Your task to perform on an android device: Go to Reddit.com Image 0: 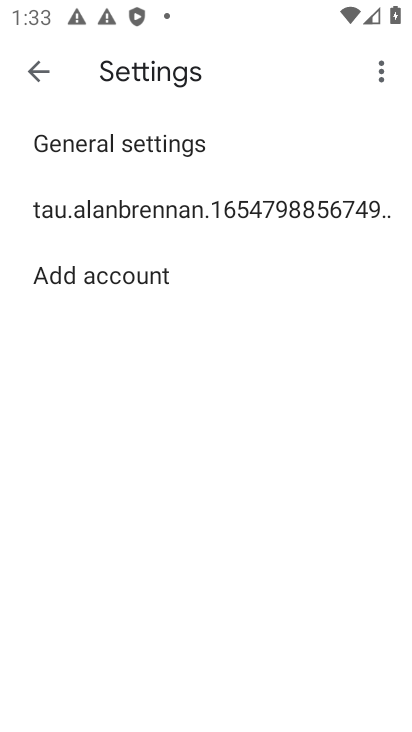
Step 0: press home button
Your task to perform on an android device: Go to Reddit.com Image 1: 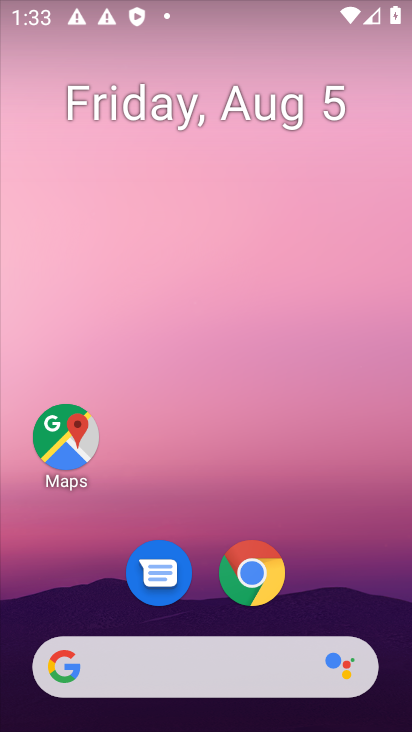
Step 1: drag from (364, 596) to (356, 198)
Your task to perform on an android device: Go to Reddit.com Image 2: 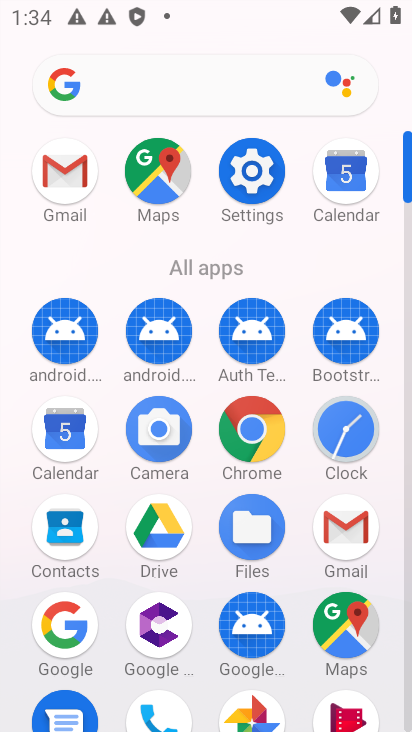
Step 2: click (270, 425)
Your task to perform on an android device: Go to Reddit.com Image 3: 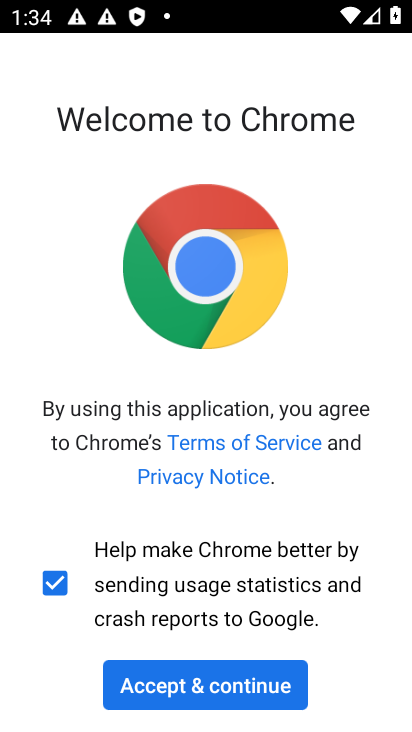
Step 3: click (235, 684)
Your task to perform on an android device: Go to Reddit.com Image 4: 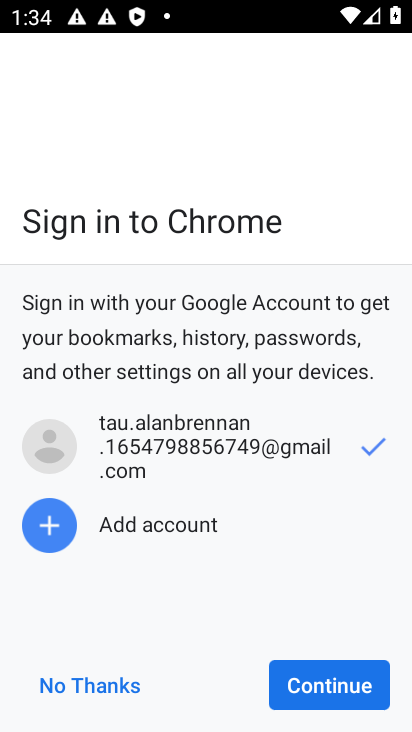
Step 4: click (309, 685)
Your task to perform on an android device: Go to Reddit.com Image 5: 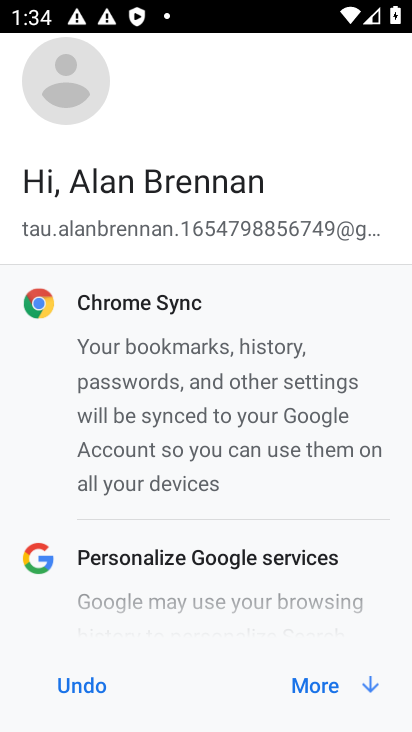
Step 5: click (309, 685)
Your task to perform on an android device: Go to Reddit.com Image 6: 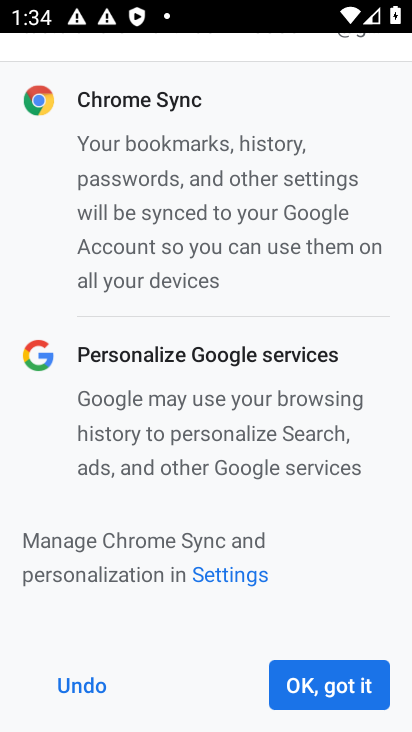
Step 6: click (309, 685)
Your task to perform on an android device: Go to Reddit.com Image 7: 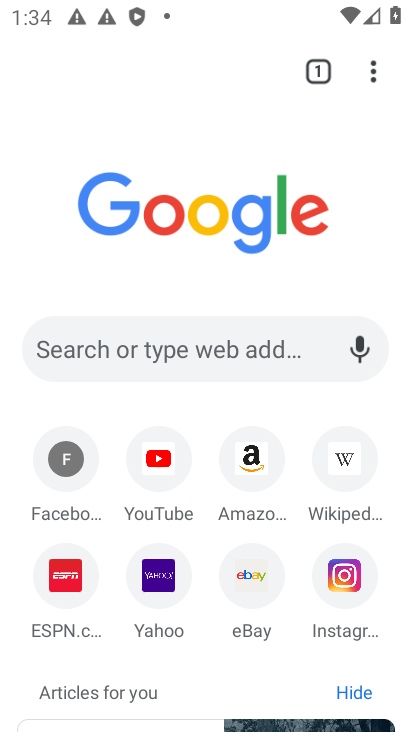
Step 7: click (269, 348)
Your task to perform on an android device: Go to Reddit.com Image 8: 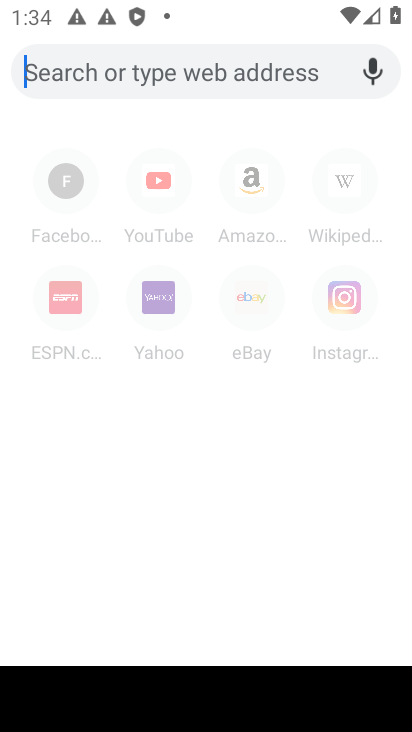
Step 8: type "reddit.com"
Your task to perform on an android device: Go to Reddit.com Image 9: 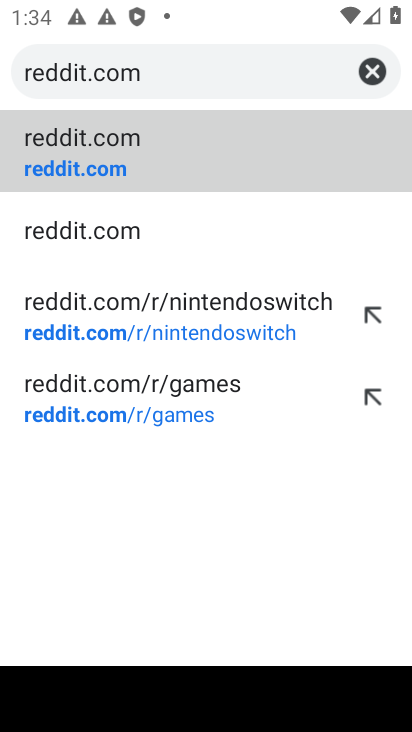
Step 9: click (280, 155)
Your task to perform on an android device: Go to Reddit.com Image 10: 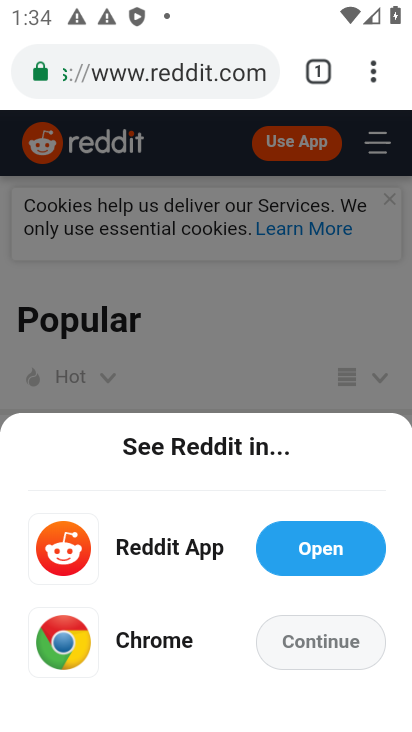
Step 10: task complete